Your task to perform on an android device: Is it going to rain tomorrow? Image 0: 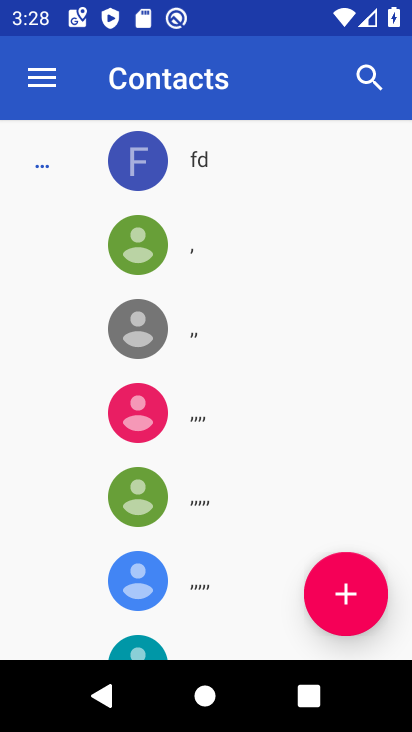
Step 0: press back button
Your task to perform on an android device: Is it going to rain tomorrow? Image 1: 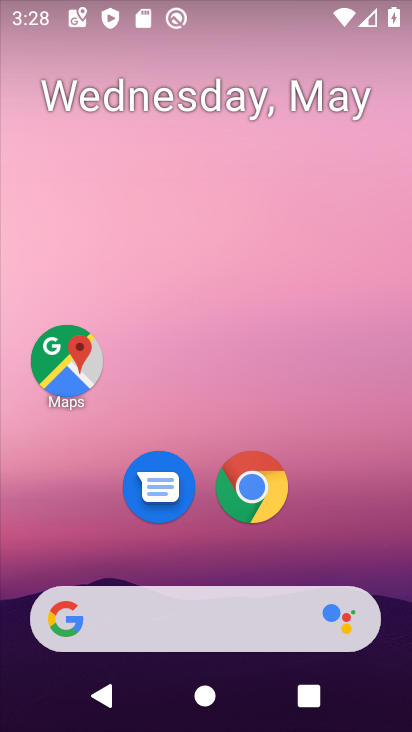
Step 1: drag from (320, 544) to (263, 60)
Your task to perform on an android device: Is it going to rain tomorrow? Image 2: 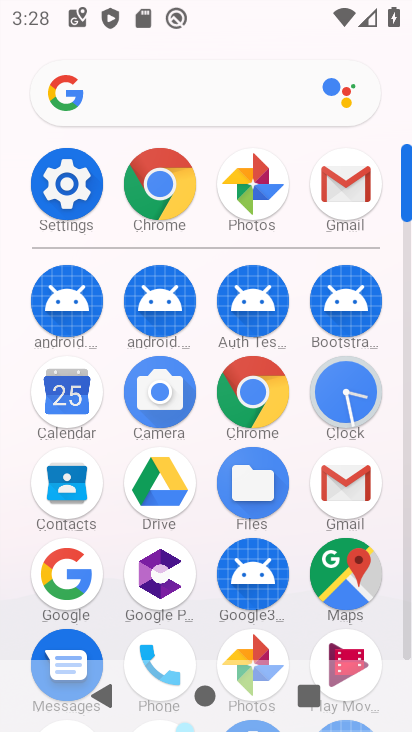
Step 2: drag from (5, 537) to (1, 257)
Your task to perform on an android device: Is it going to rain tomorrow? Image 3: 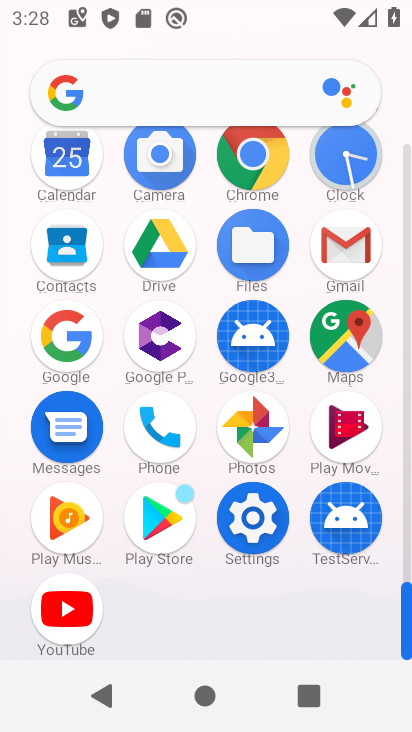
Step 3: drag from (13, 190) to (0, 534)
Your task to perform on an android device: Is it going to rain tomorrow? Image 4: 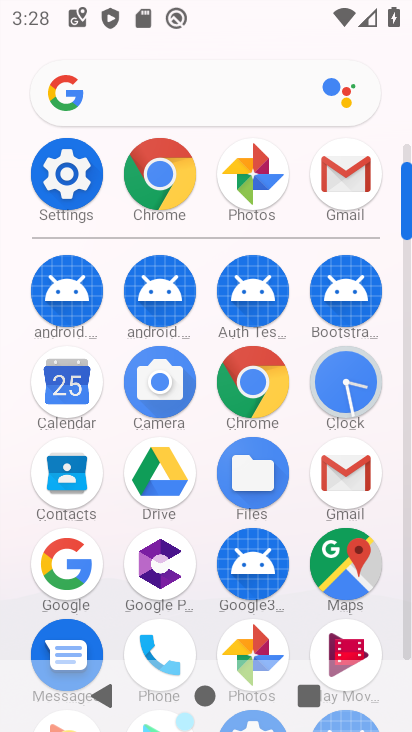
Step 4: click (153, 170)
Your task to perform on an android device: Is it going to rain tomorrow? Image 5: 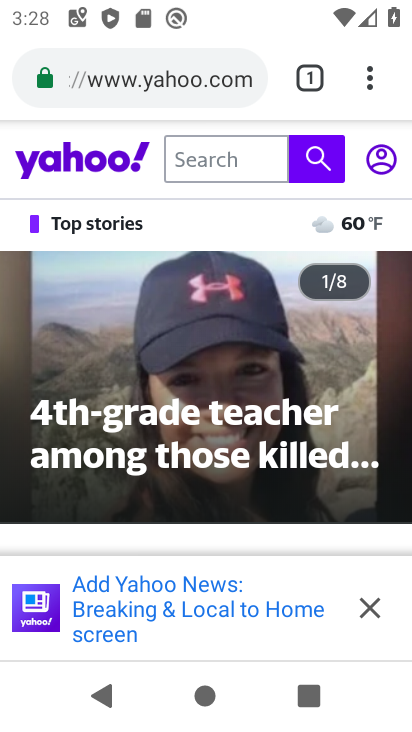
Step 5: click (106, 64)
Your task to perform on an android device: Is it going to rain tomorrow? Image 6: 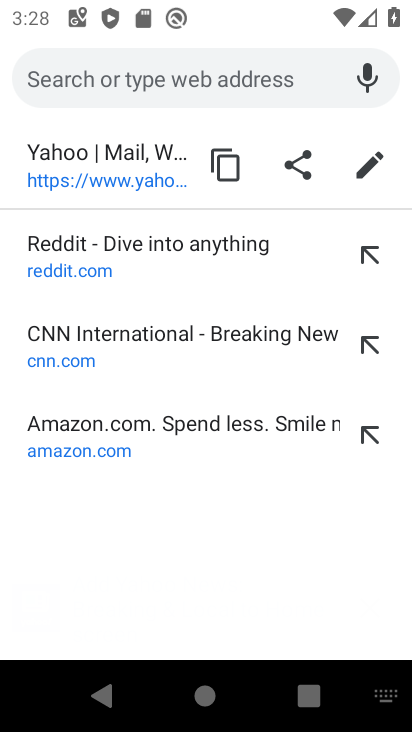
Step 6: type "Is it going to rain tomorrow?"
Your task to perform on an android device: Is it going to rain tomorrow? Image 7: 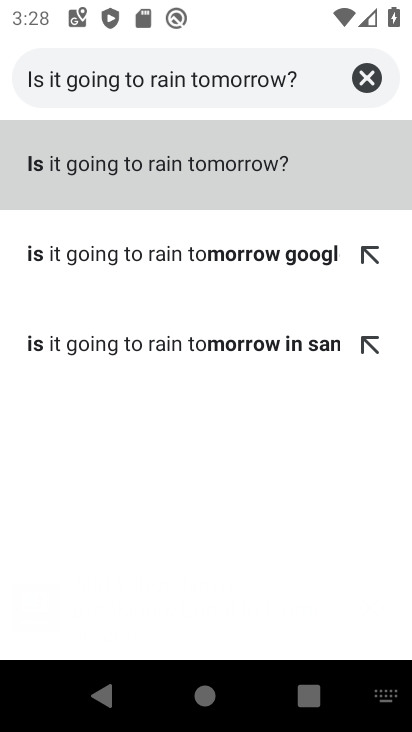
Step 7: click (129, 82)
Your task to perform on an android device: Is it going to rain tomorrow? Image 8: 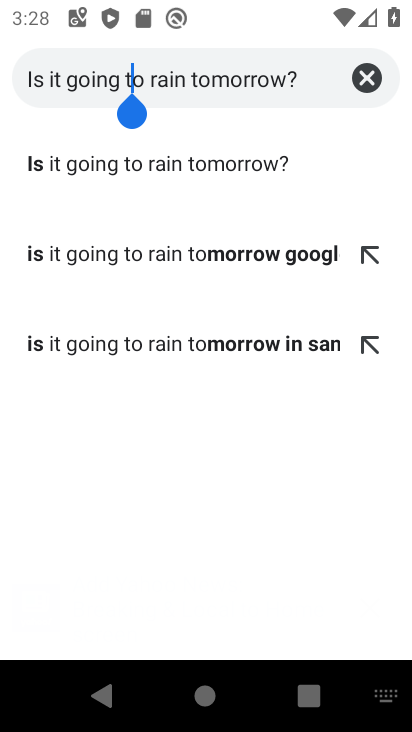
Step 8: click (128, 152)
Your task to perform on an android device: Is it going to rain tomorrow? Image 9: 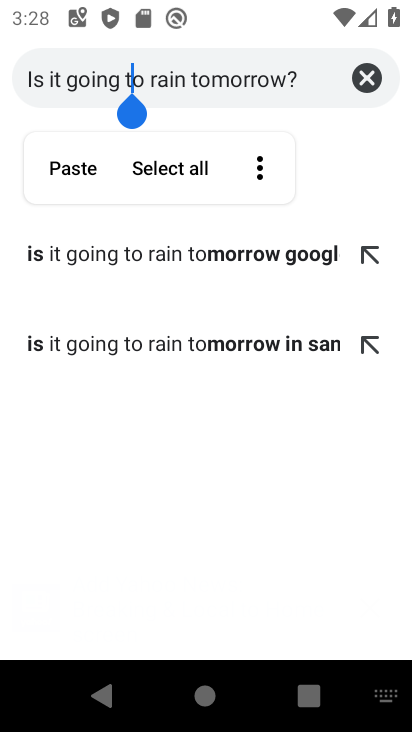
Step 9: click (16, 180)
Your task to perform on an android device: Is it going to rain tomorrow? Image 10: 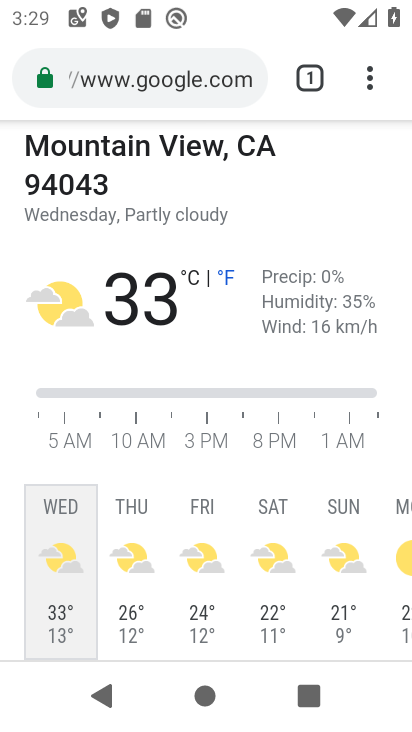
Step 10: task complete